Your task to perform on an android device: toggle translation in the chrome app Image 0: 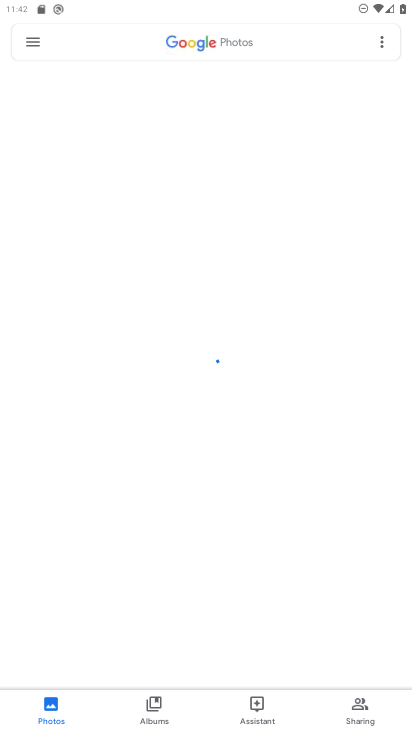
Step 0: press home button
Your task to perform on an android device: toggle translation in the chrome app Image 1: 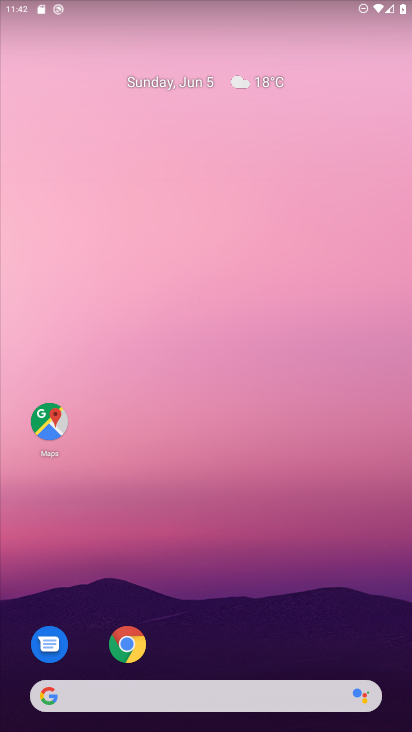
Step 1: drag from (259, 718) to (211, 143)
Your task to perform on an android device: toggle translation in the chrome app Image 2: 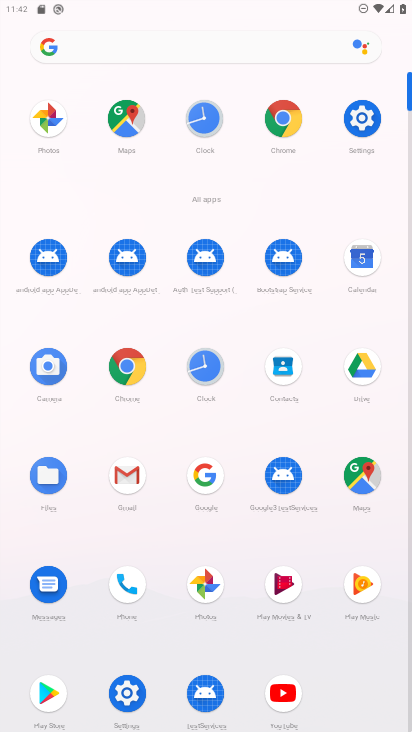
Step 2: click (135, 377)
Your task to perform on an android device: toggle translation in the chrome app Image 3: 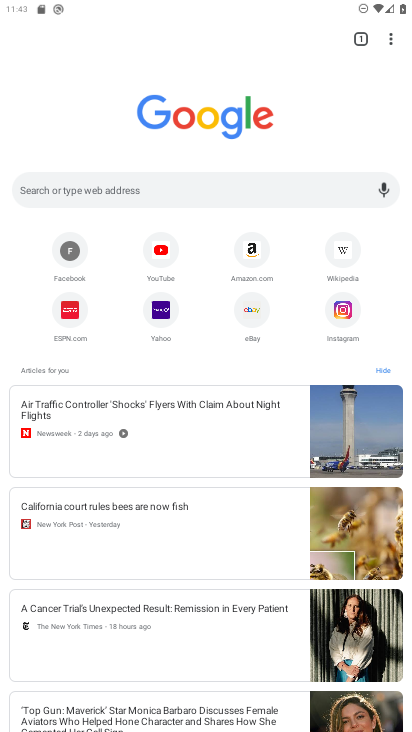
Step 3: click (382, 43)
Your task to perform on an android device: toggle translation in the chrome app Image 4: 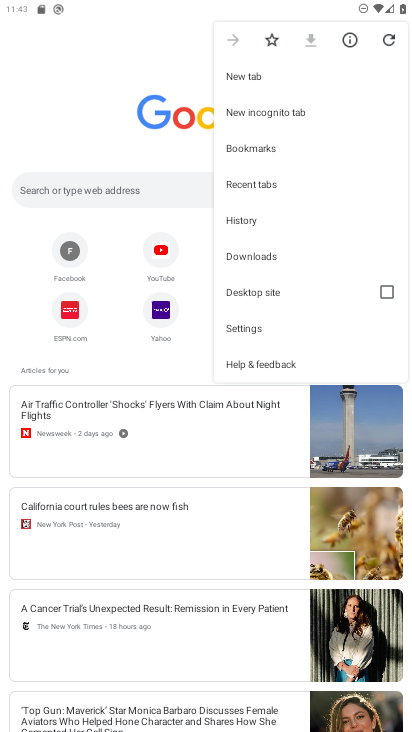
Step 4: click (255, 326)
Your task to perform on an android device: toggle translation in the chrome app Image 5: 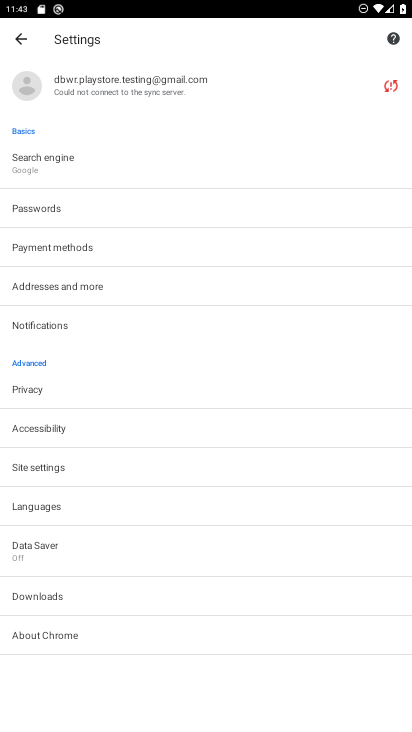
Step 5: click (73, 501)
Your task to perform on an android device: toggle translation in the chrome app Image 6: 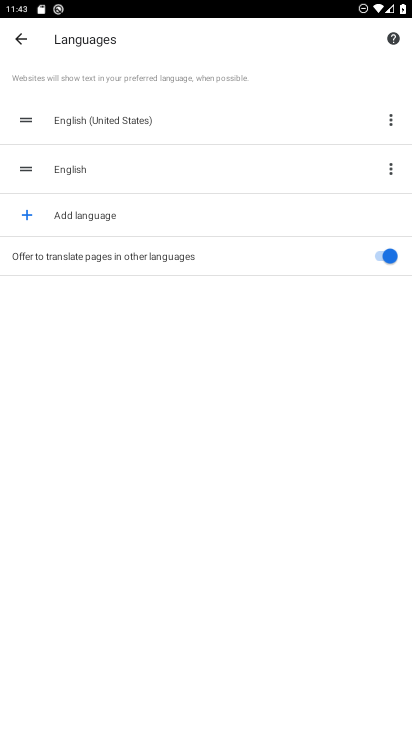
Step 6: task complete